Your task to perform on an android device: Open Google Chrome and open the bookmarks view Image 0: 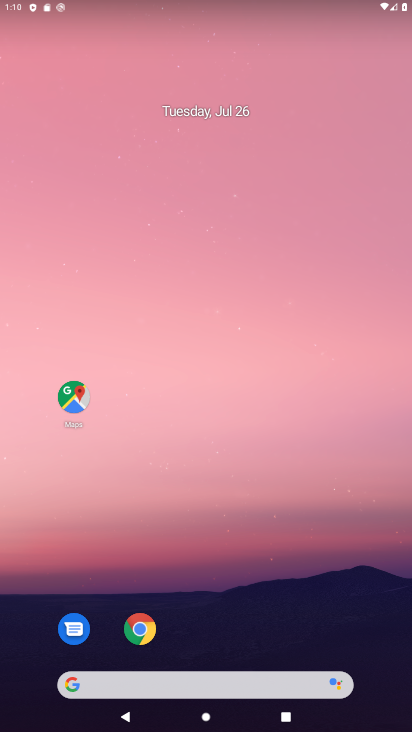
Step 0: drag from (247, 593) to (232, 145)
Your task to perform on an android device: Open Google Chrome and open the bookmarks view Image 1: 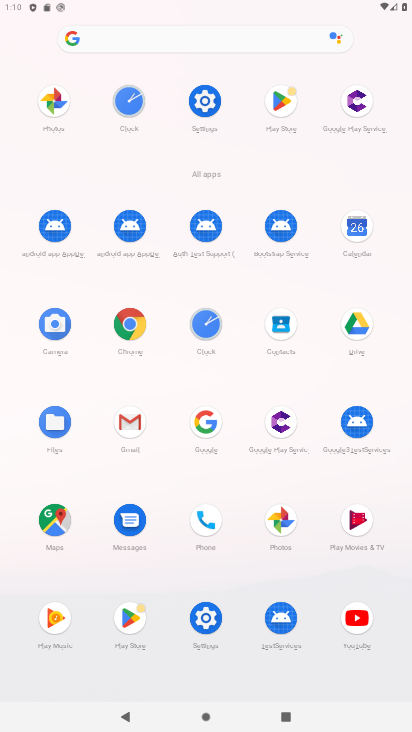
Step 1: click (125, 321)
Your task to perform on an android device: Open Google Chrome and open the bookmarks view Image 2: 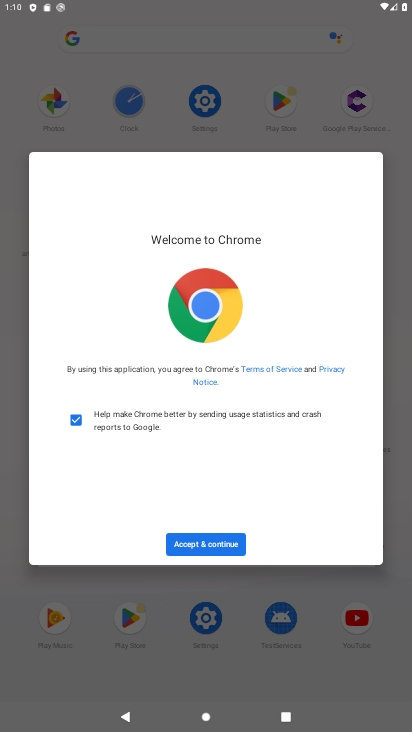
Step 2: click (223, 540)
Your task to perform on an android device: Open Google Chrome and open the bookmarks view Image 3: 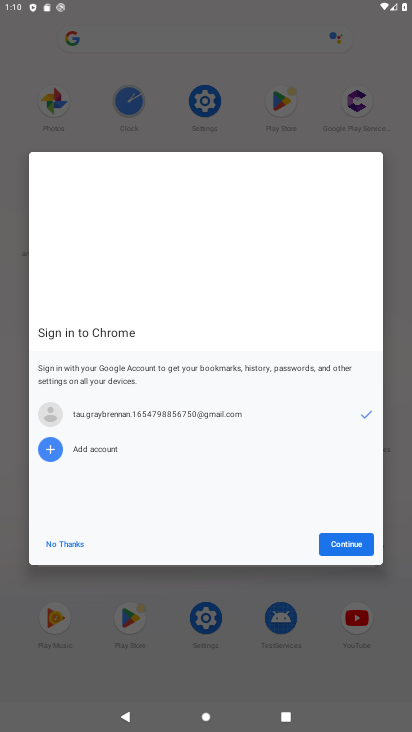
Step 3: click (360, 545)
Your task to perform on an android device: Open Google Chrome and open the bookmarks view Image 4: 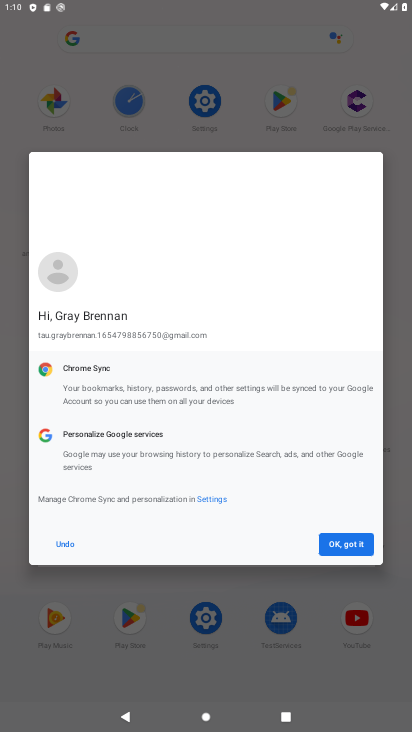
Step 4: click (345, 545)
Your task to perform on an android device: Open Google Chrome and open the bookmarks view Image 5: 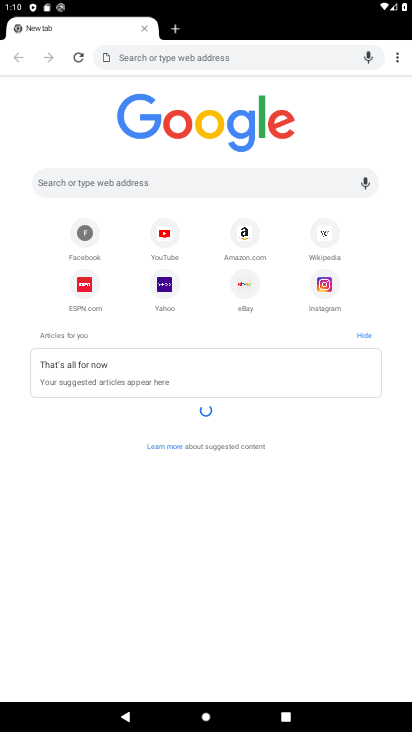
Step 5: click (394, 59)
Your task to perform on an android device: Open Google Chrome and open the bookmarks view Image 6: 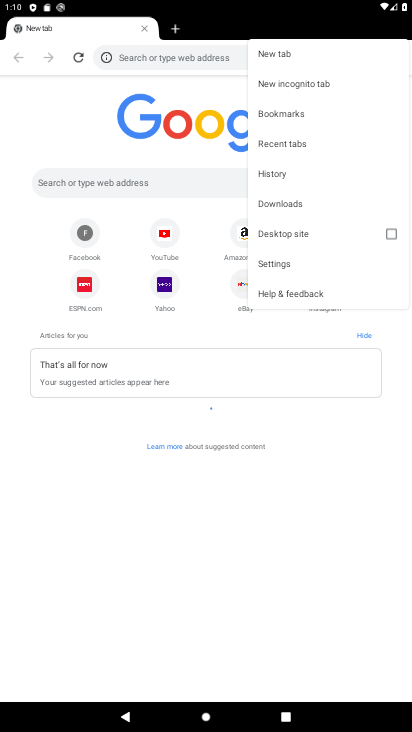
Step 6: click (320, 115)
Your task to perform on an android device: Open Google Chrome and open the bookmarks view Image 7: 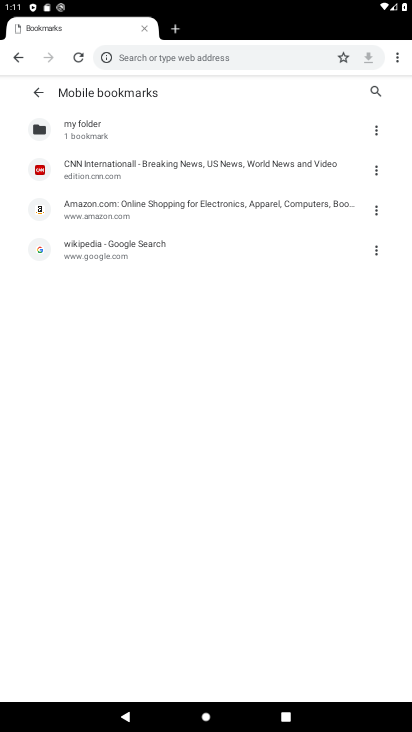
Step 7: task complete